Your task to perform on an android device: Go to calendar. Show me events next week Image 0: 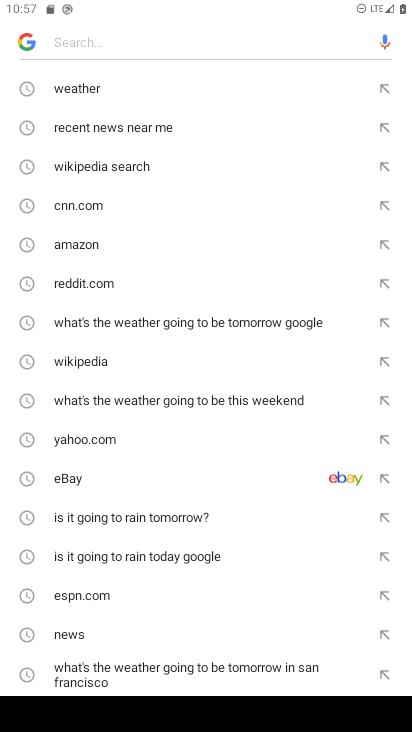
Step 0: press back button
Your task to perform on an android device: Go to calendar. Show me events next week Image 1: 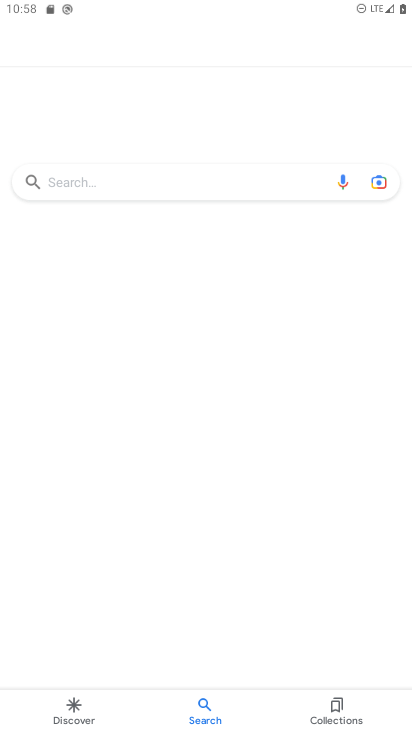
Step 1: press back button
Your task to perform on an android device: Go to calendar. Show me events next week Image 2: 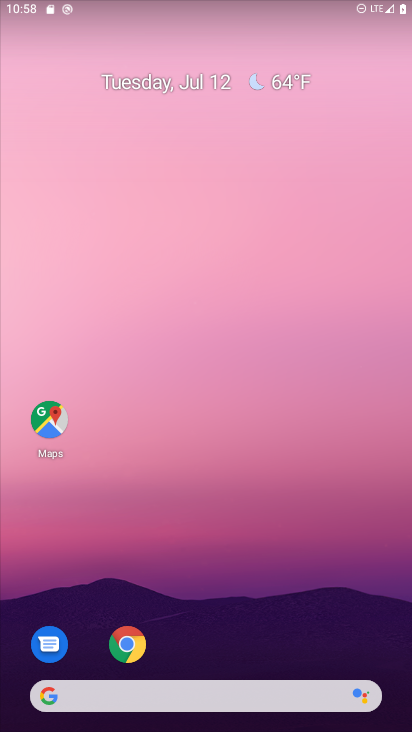
Step 2: drag from (229, 664) to (321, 113)
Your task to perform on an android device: Go to calendar. Show me events next week Image 3: 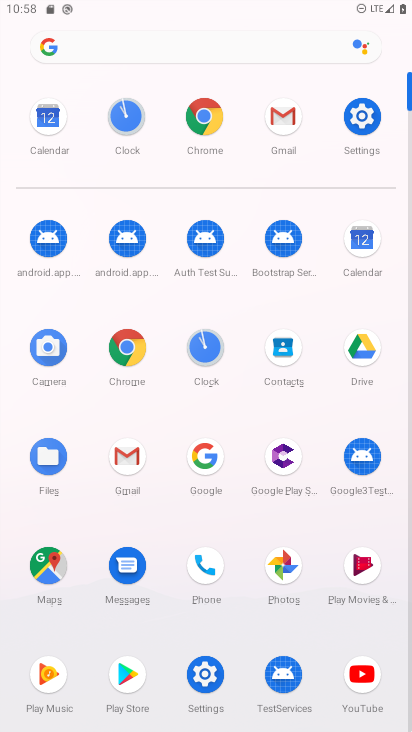
Step 3: click (22, 135)
Your task to perform on an android device: Go to calendar. Show me events next week Image 4: 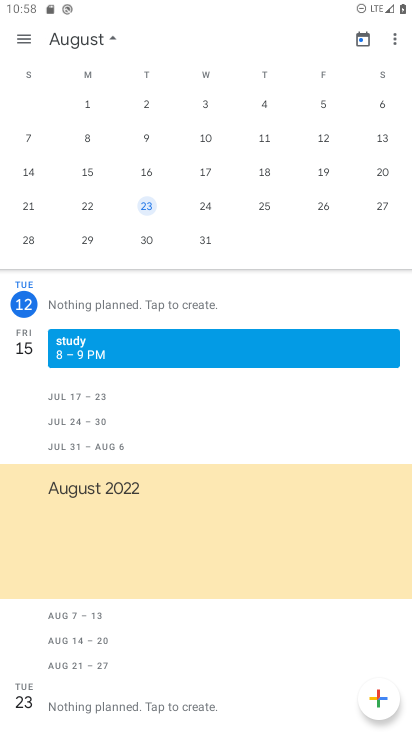
Step 4: drag from (74, 116) to (371, 137)
Your task to perform on an android device: Go to calendar. Show me events next week Image 5: 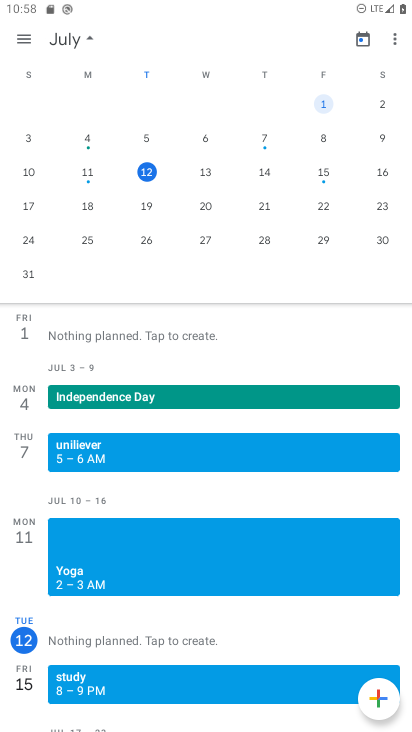
Step 5: drag from (27, 170) to (63, 170)
Your task to perform on an android device: Go to calendar. Show me events next week Image 6: 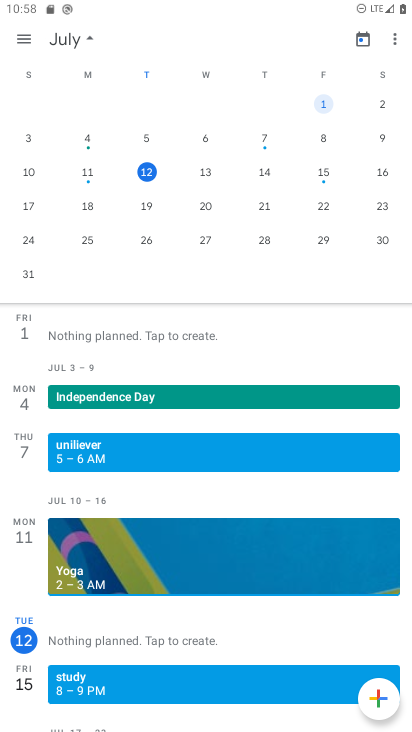
Step 6: click (329, 195)
Your task to perform on an android device: Go to calendar. Show me events next week Image 7: 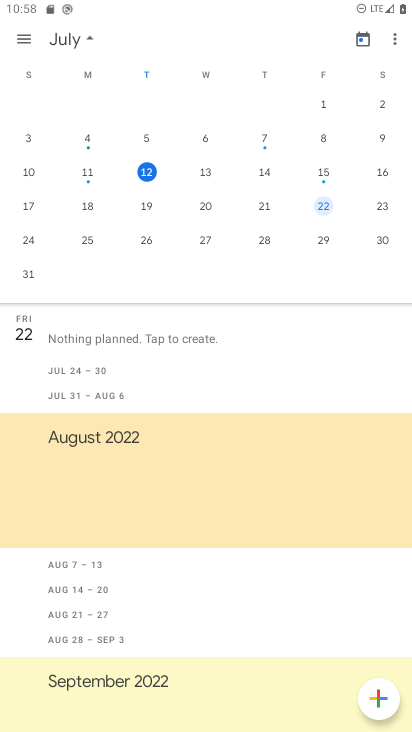
Step 7: task complete